Your task to perform on an android device: Go to eBay Image 0: 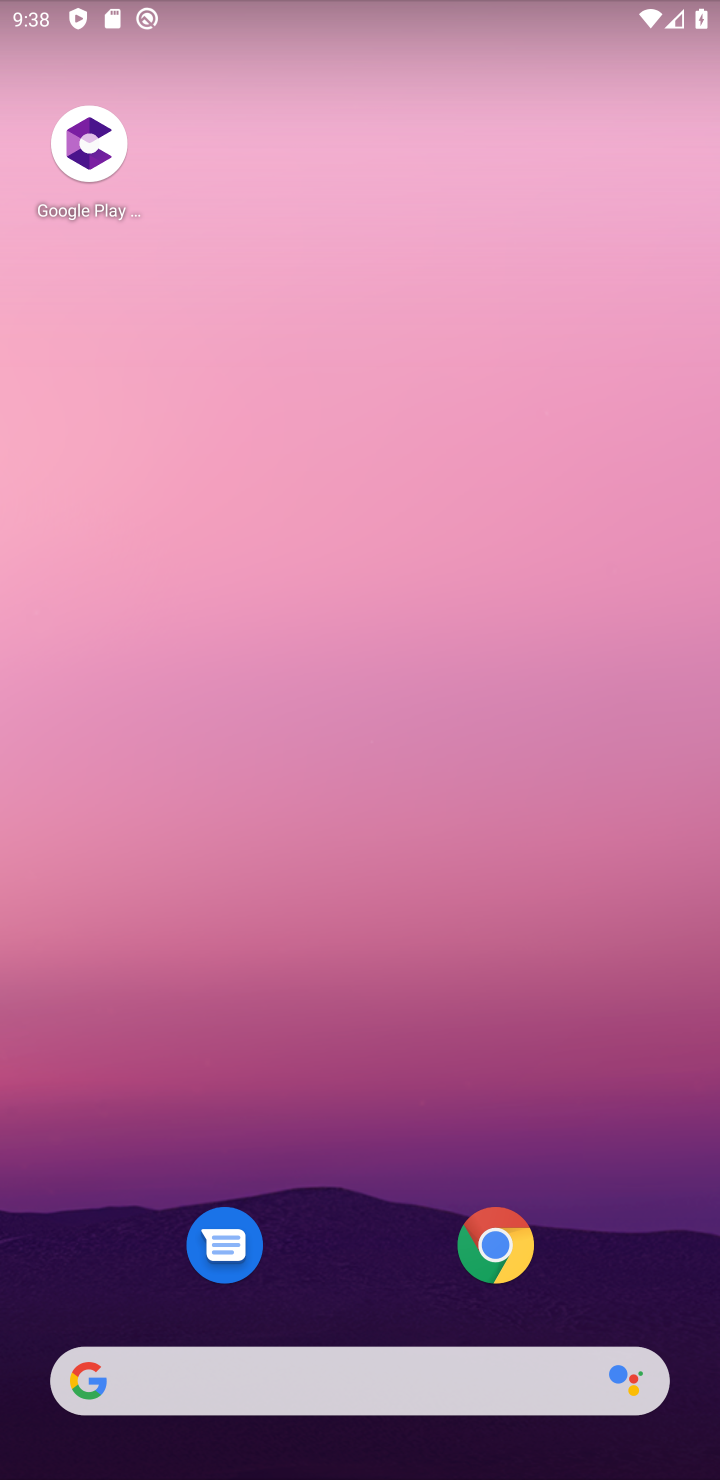
Step 0: click (499, 1244)
Your task to perform on an android device: Go to eBay Image 1: 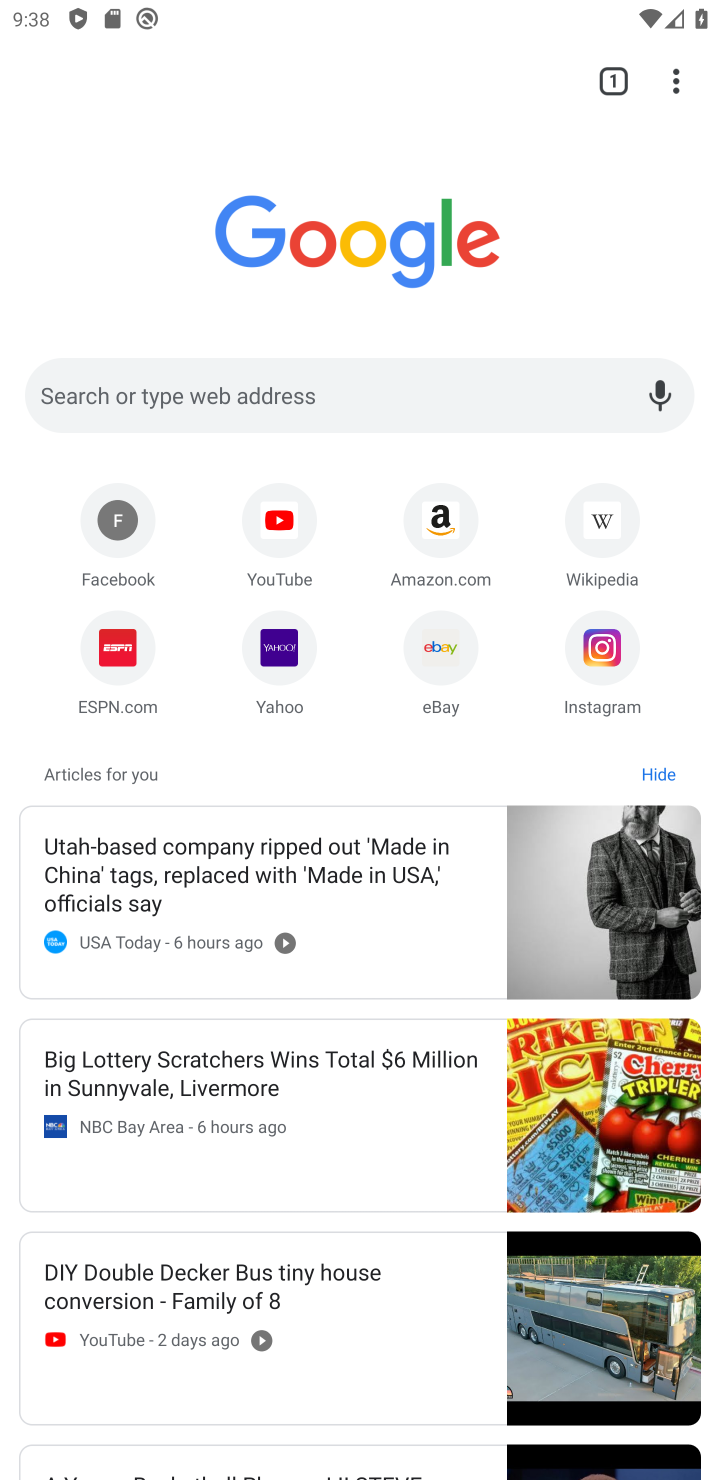
Step 1: click (442, 645)
Your task to perform on an android device: Go to eBay Image 2: 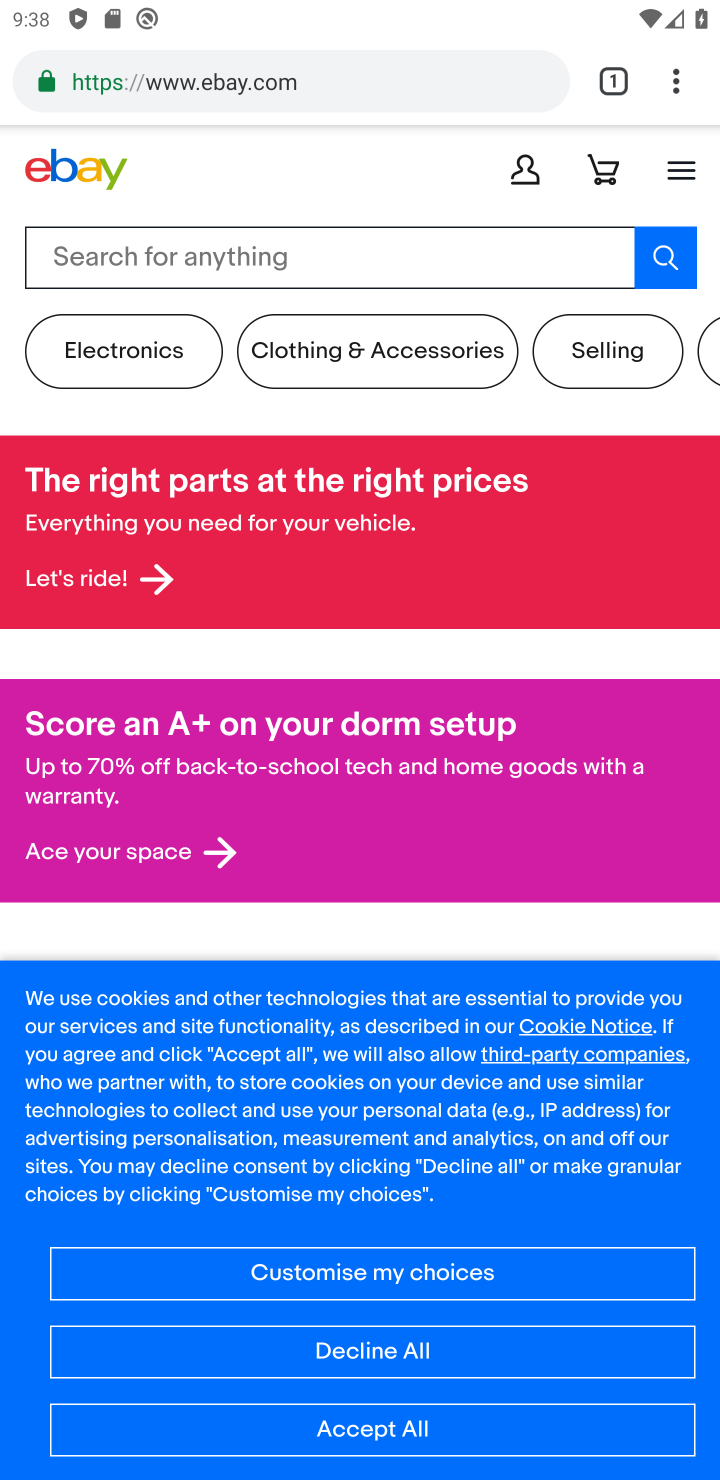
Step 2: task complete